Your task to perform on an android device: toggle data saver in the chrome app Image 0: 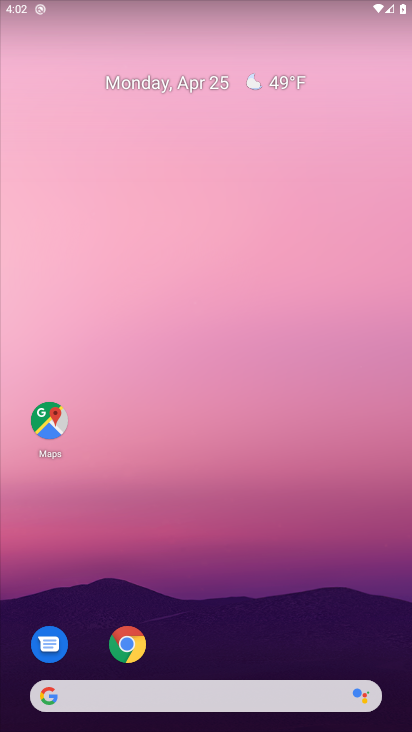
Step 0: click (143, 644)
Your task to perform on an android device: toggle data saver in the chrome app Image 1: 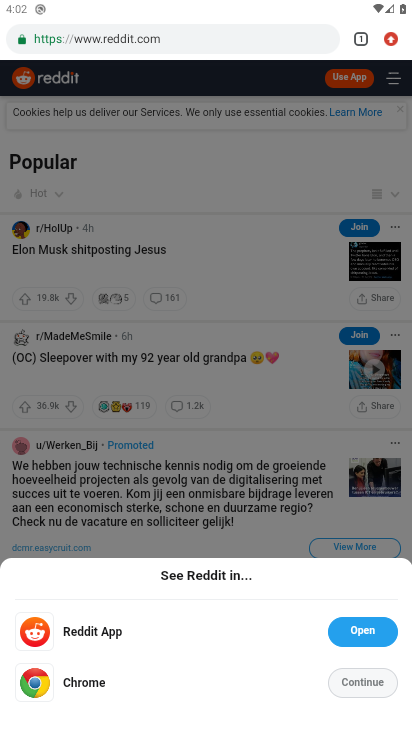
Step 1: click (385, 38)
Your task to perform on an android device: toggle data saver in the chrome app Image 2: 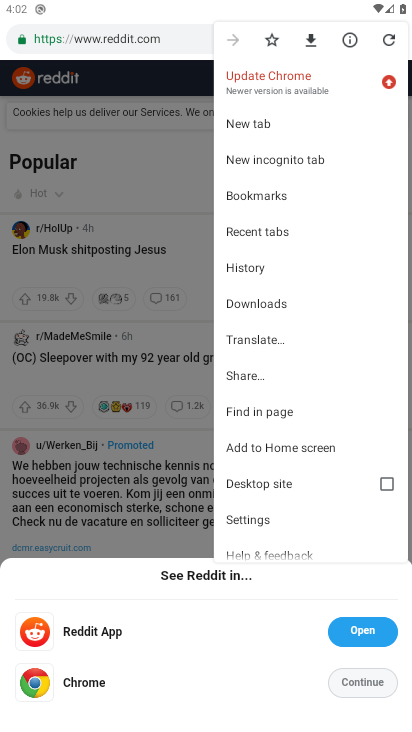
Step 2: click (257, 515)
Your task to perform on an android device: toggle data saver in the chrome app Image 3: 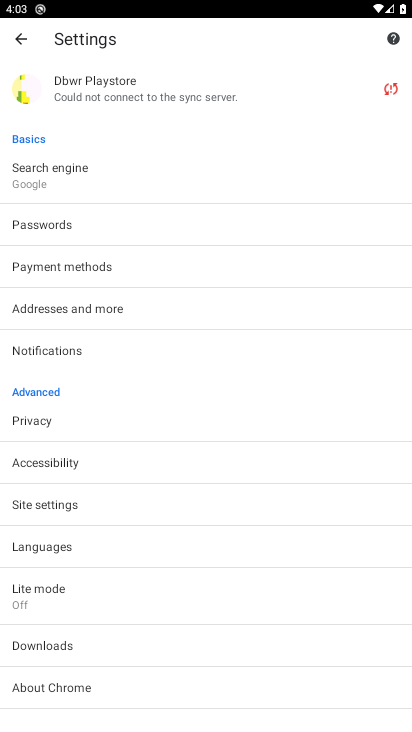
Step 3: click (146, 588)
Your task to perform on an android device: toggle data saver in the chrome app Image 4: 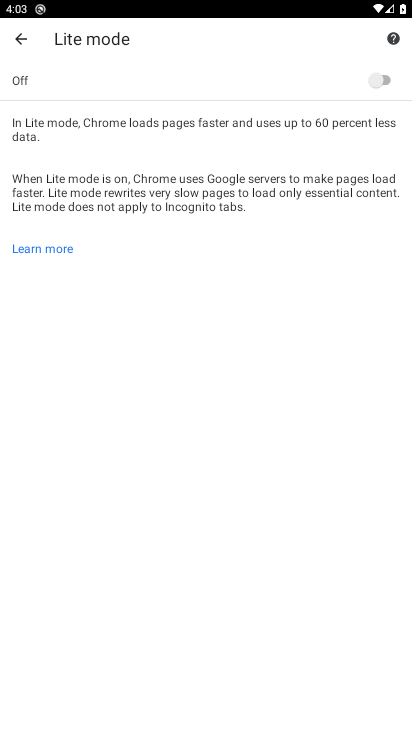
Step 4: click (375, 85)
Your task to perform on an android device: toggle data saver in the chrome app Image 5: 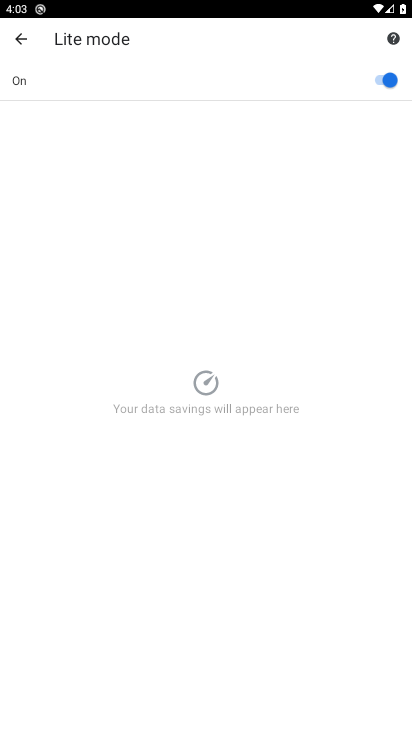
Step 5: task complete